Your task to perform on an android device: turn off picture-in-picture Image 0: 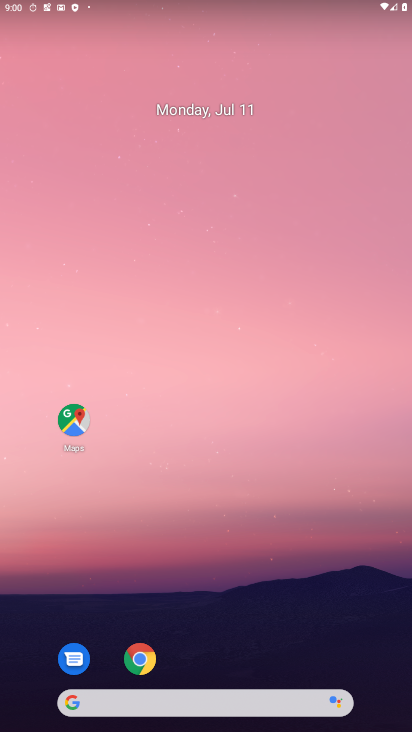
Step 0: drag from (261, 700) to (248, 116)
Your task to perform on an android device: turn off picture-in-picture Image 1: 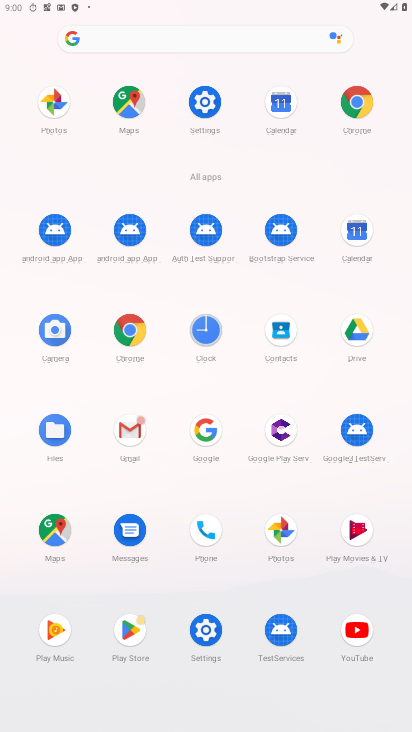
Step 1: click (352, 118)
Your task to perform on an android device: turn off picture-in-picture Image 2: 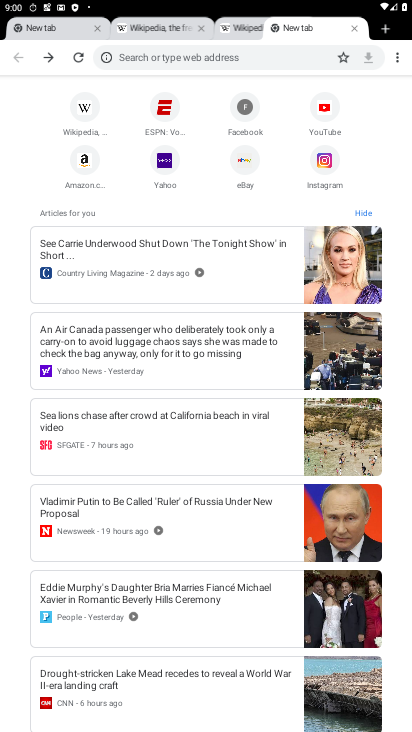
Step 2: click (351, 120)
Your task to perform on an android device: turn off picture-in-picture Image 3: 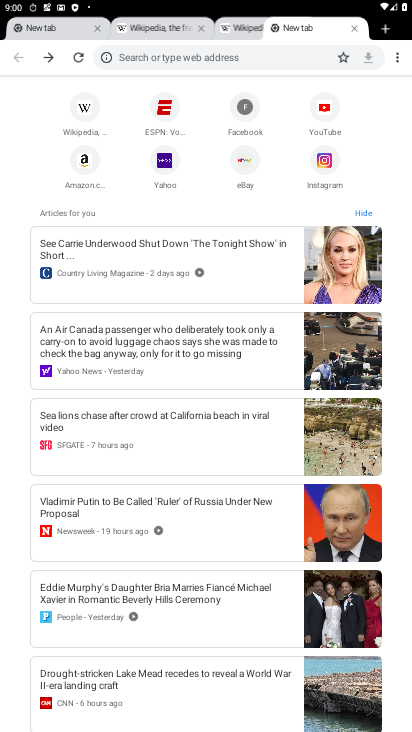
Step 3: task complete